Your task to perform on an android device: turn off data saver in the chrome app Image 0: 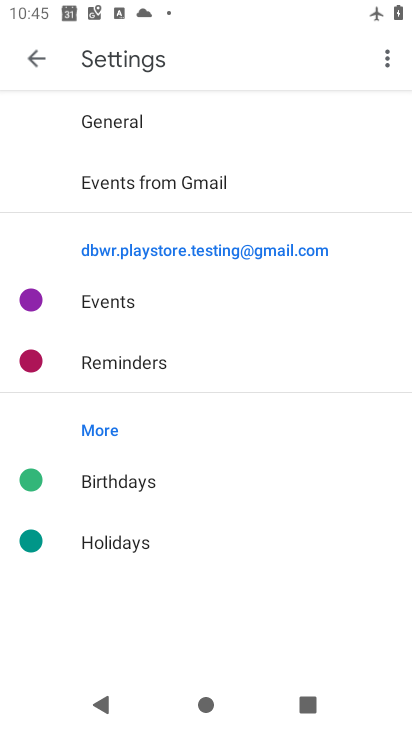
Step 0: press home button
Your task to perform on an android device: turn off data saver in the chrome app Image 1: 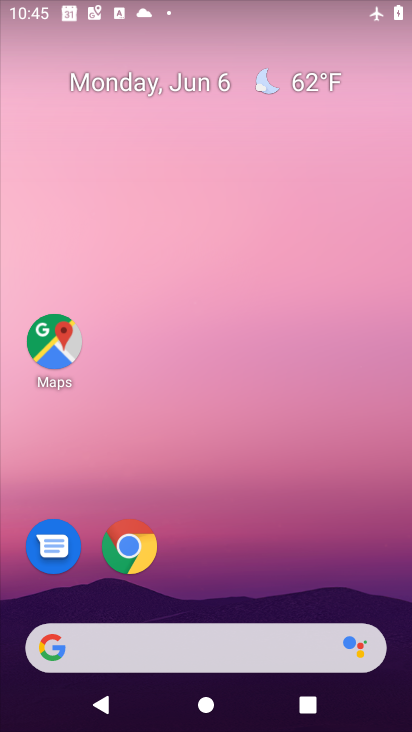
Step 1: click (130, 548)
Your task to perform on an android device: turn off data saver in the chrome app Image 2: 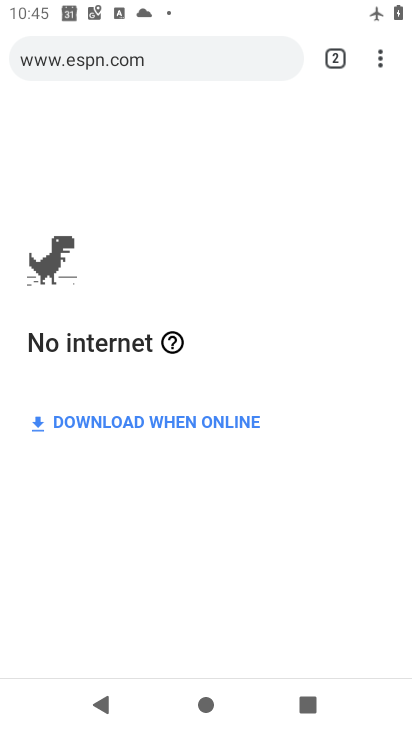
Step 2: click (379, 65)
Your task to perform on an android device: turn off data saver in the chrome app Image 3: 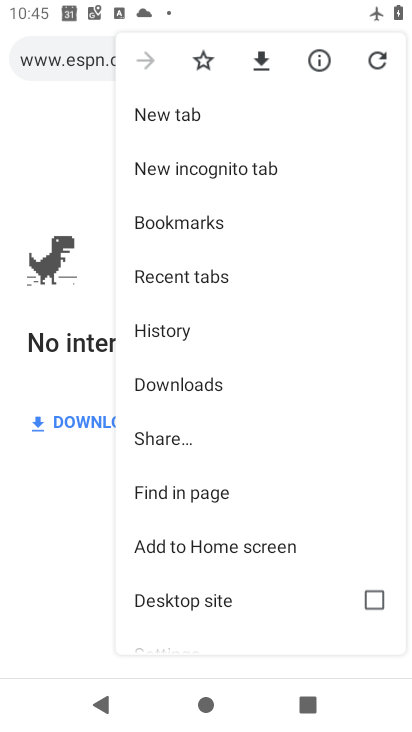
Step 3: drag from (283, 578) to (308, 222)
Your task to perform on an android device: turn off data saver in the chrome app Image 4: 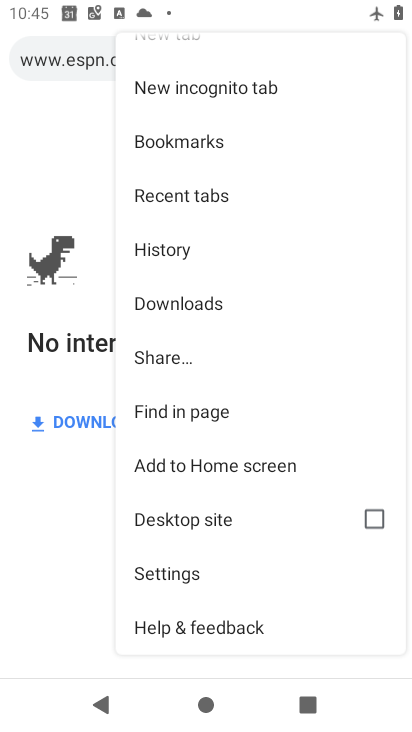
Step 4: click (173, 571)
Your task to perform on an android device: turn off data saver in the chrome app Image 5: 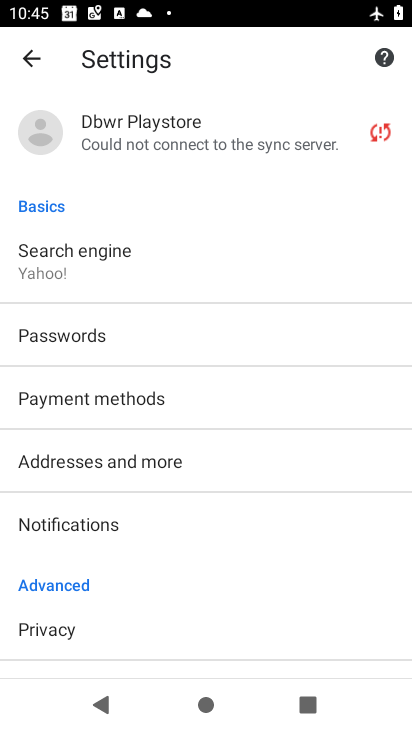
Step 5: drag from (192, 626) to (191, 317)
Your task to perform on an android device: turn off data saver in the chrome app Image 6: 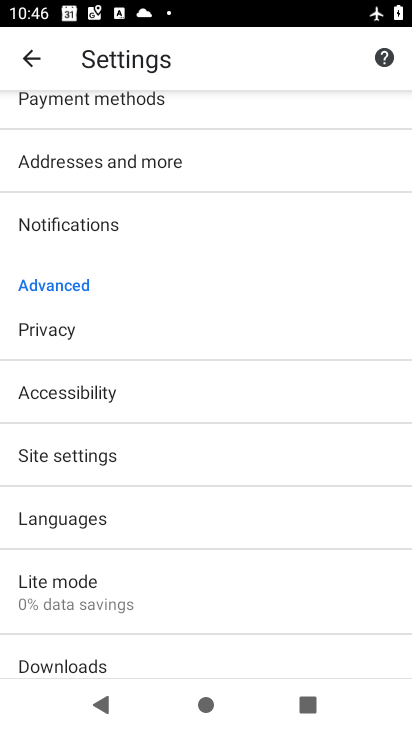
Step 6: click (116, 588)
Your task to perform on an android device: turn off data saver in the chrome app Image 7: 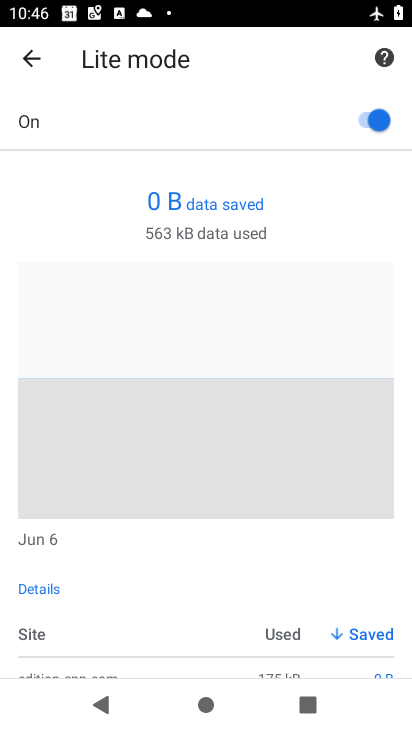
Step 7: click (354, 122)
Your task to perform on an android device: turn off data saver in the chrome app Image 8: 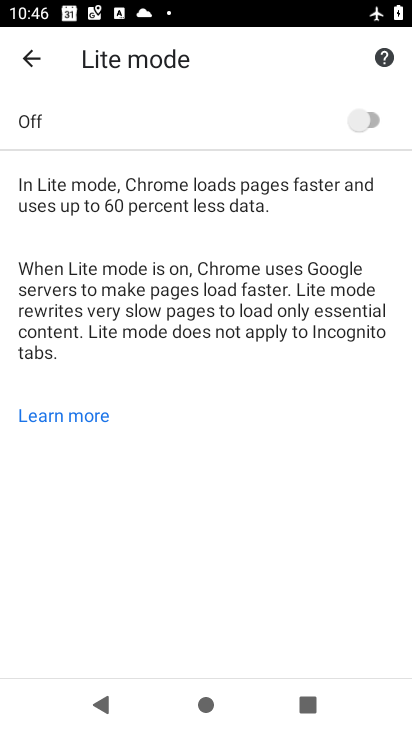
Step 8: task complete